Your task to perform on an android device: show emergency info Image 0: 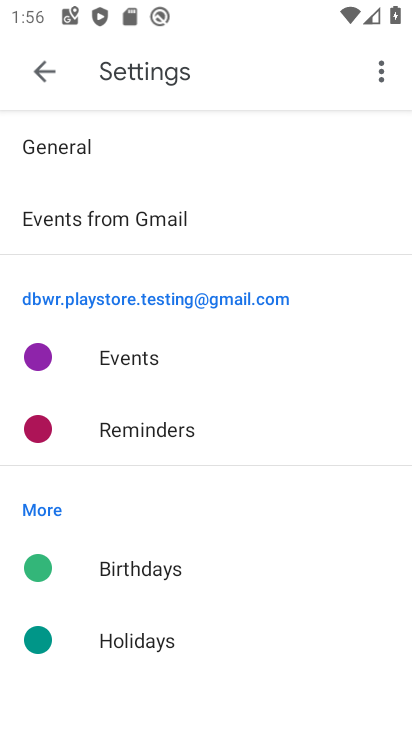
Step 0: press home button
Your task to perform on an android device: show emergency info Image 1: 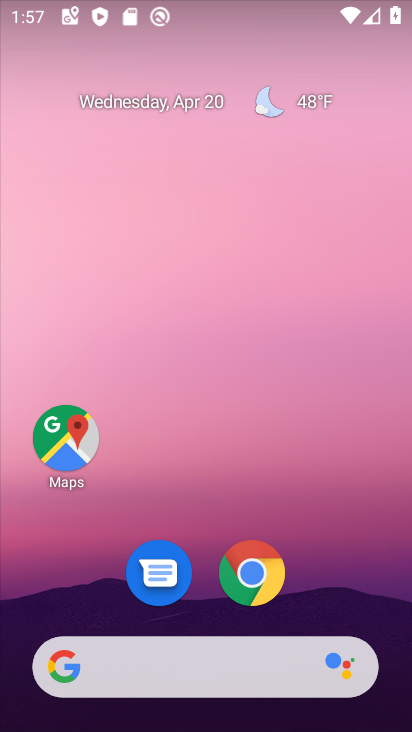
Step 1: drag from (157, 678) to (259, 159)
Your task to perform on an android device: show emergency info Image 2: 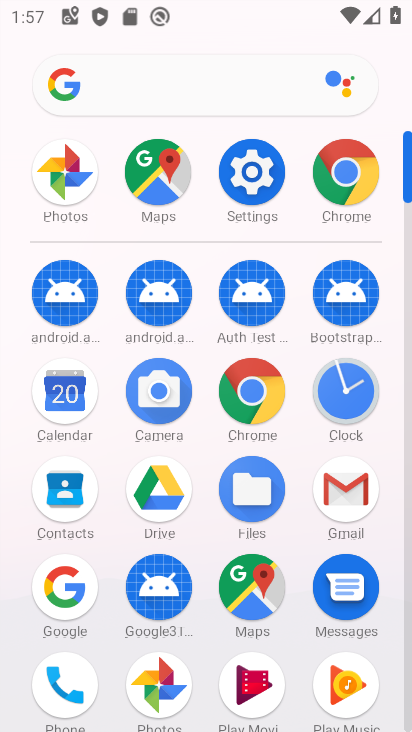
Step 2: click (261, 174)
Your task to perform on an android device: show emergency info Image 3: 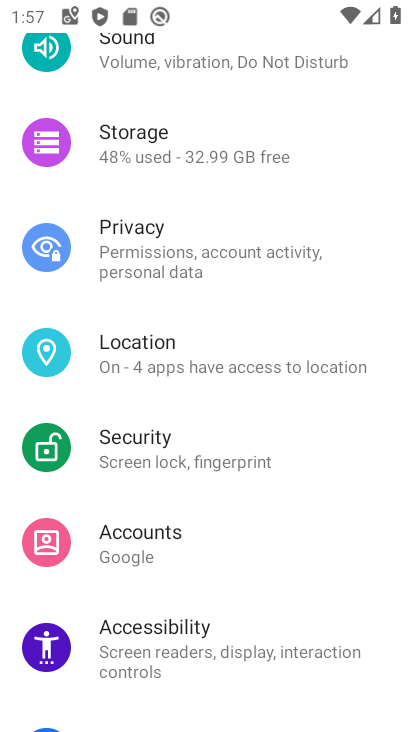
Step 3: drag from (254, 552) to (271, 177)
Your task to perform on an android device: show emergency info Image 4: 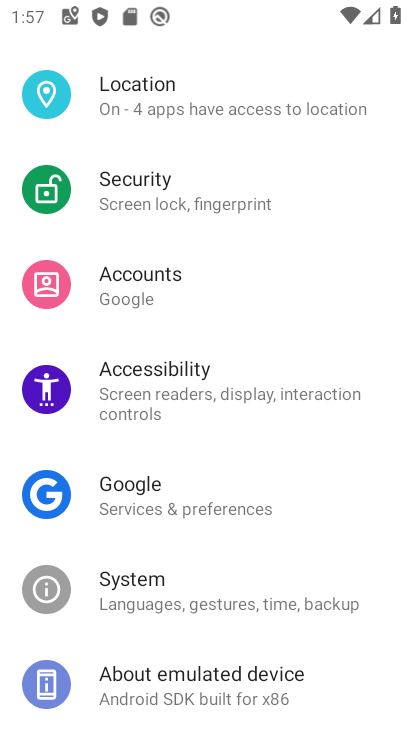
Step 4: click (206, 683)
Your task to perform on an android device: show emergency info Image 5: 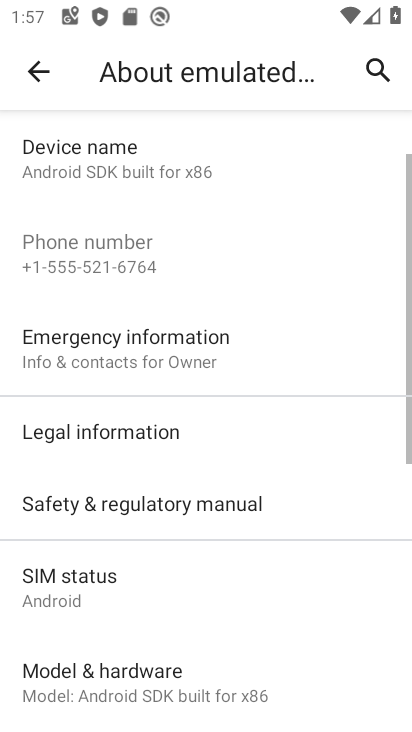
Step 5: click (144, 331)
Your task to perform on an android device: show emergency info Image 6: 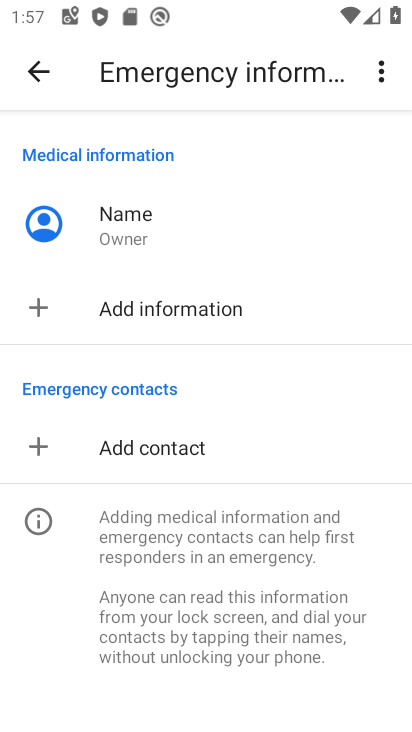
Step 6: task complete